Your task to perform on an android device: Show me recent news Image 0: 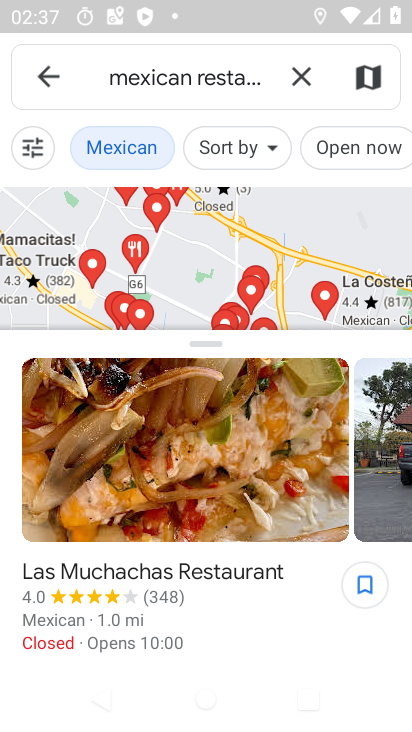
Step 0: press home button
Your task to perform on an android device: Show me recent news Image 1: 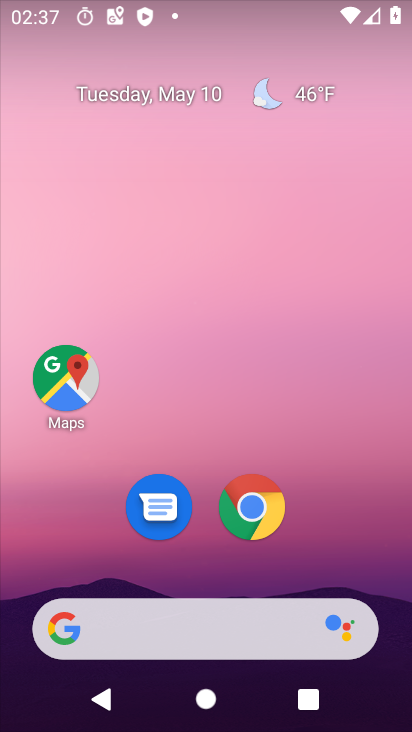
Step 1: drag from (245, 650) to (287, 187)
Your task to perform on an android device: Show me recent news Image 2: 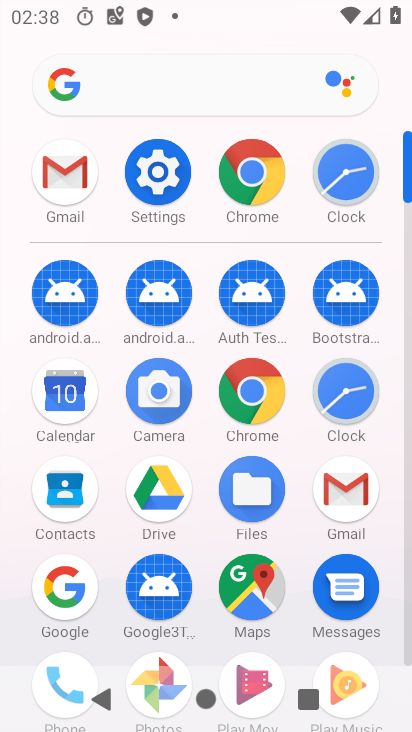
Step 2: click (141, 102)
Your task to perform on an android device: Show me recent news Image 3: 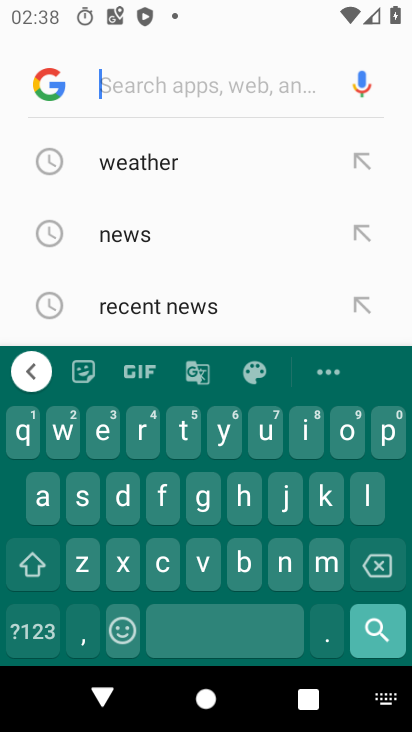
Step 3: click (177, 297)
Your task to perform on an android device: Show me recent news Image 4: 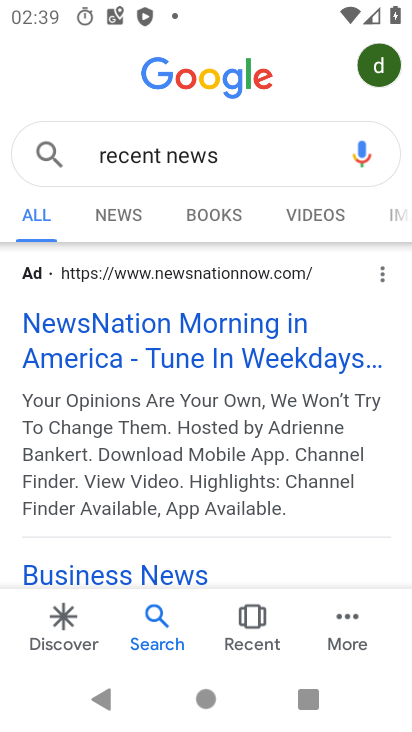
Step 4: task complete